Your task to perform on an android device: Open Maps and search for coffee Image 0: 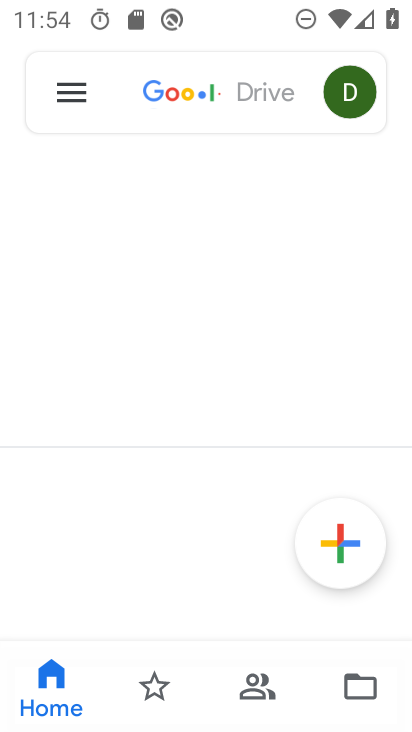
Step 0: drag from (193, 587) to (198, 491)
Your task to perform on an android device: Open Maps and search for coffee Image 1: 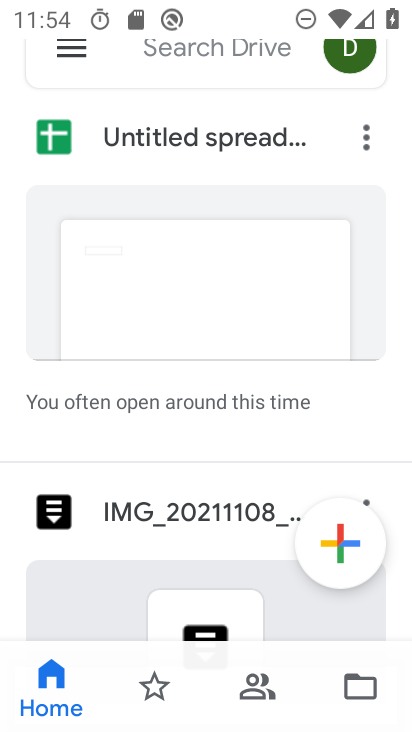
Step 1: press home button
Your task to perform on an android device: Open Maps and search for coffee Image 2: 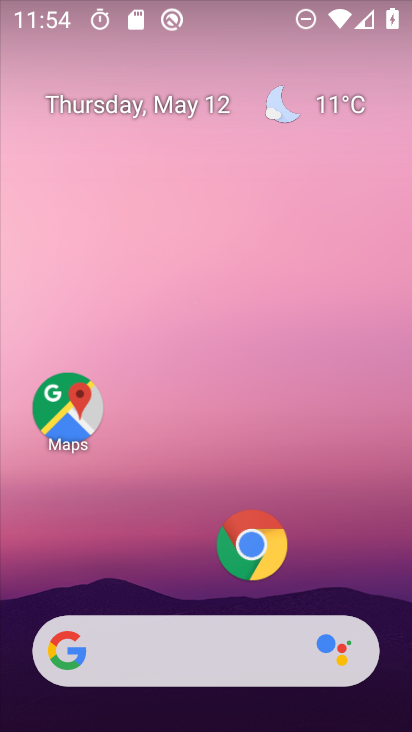
Step 2: drag from (196, 591) to (237, 204)
Your task to perform on an android device: Open Maps and search for coffee Image 3: 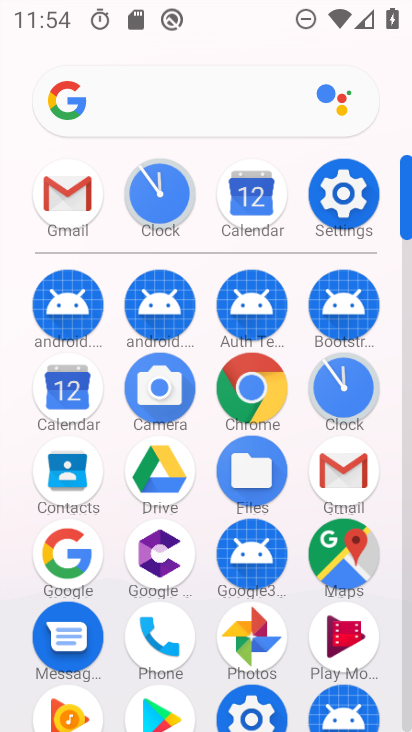
Step 3: click (344, 549)
Your task to perform on an android device: Open Maps and search for coffee Image 4: 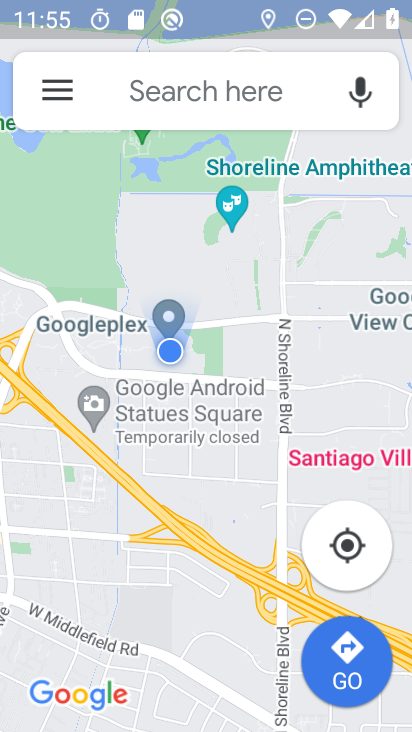
Step 4: click (159, 82)
Your task to perform on an android device: Open Maps and search for coffee Image 5: 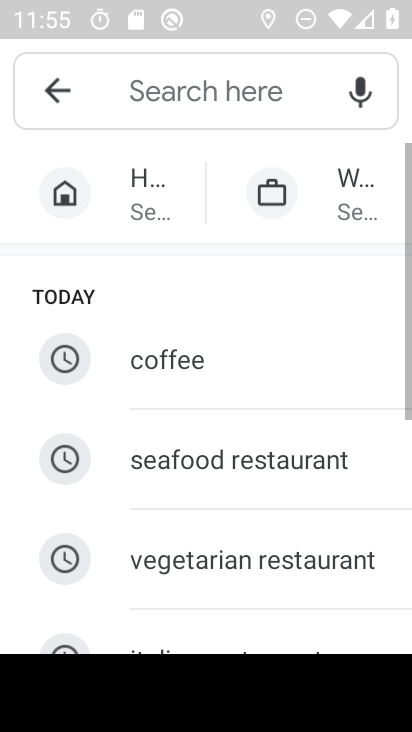
Step 5: click (163, 379)
Your task to perform on an android device: Open Maps and search for coffee Image 6: 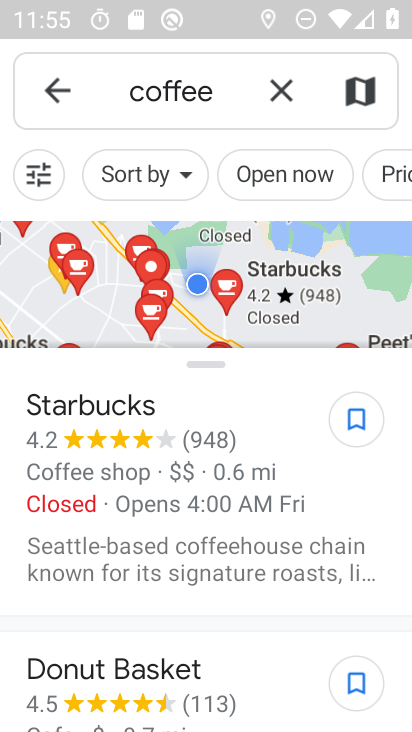
Step 6: task complete